Your task to perform on an android device: Open Amazon Image 0: 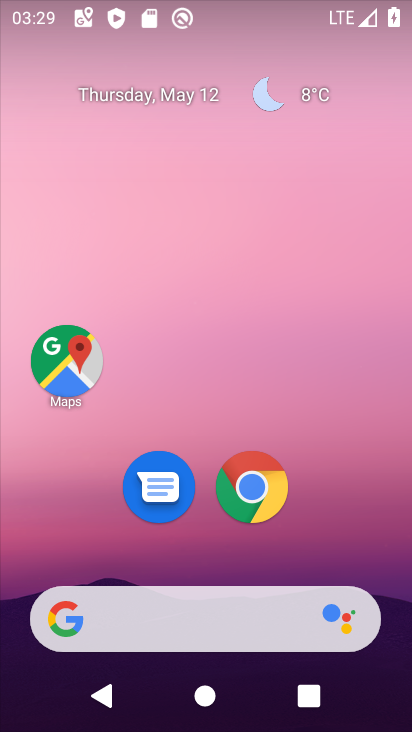
Step 0: click (245, 489)
Your task to perform on an android device: Open Amazon Image 1: 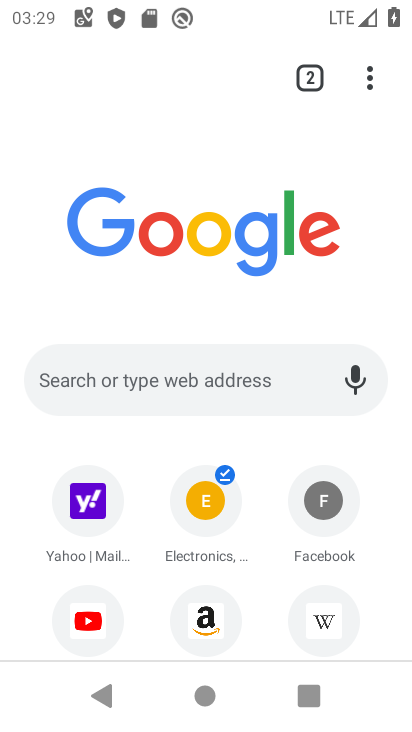
Step 1: click (210, 622)
Your task to perform on an android device: Open Amazon Image 2: 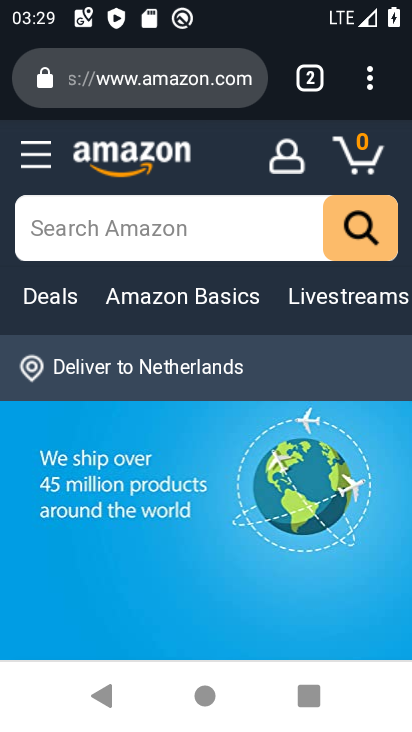
Step 2: task complete